Your task to perform on an android device: turn off javascript in the chrome app Image 0: 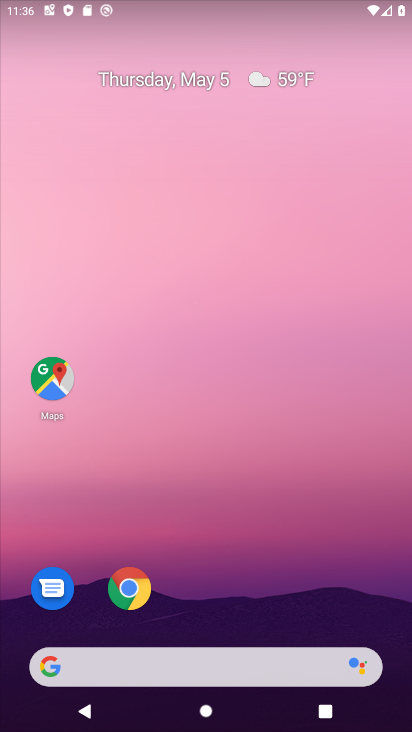
Step 0: drag from (296, 571) to (307, 82)
Your task to perform on an android device: turn off javascript in the chrome app Image 1: 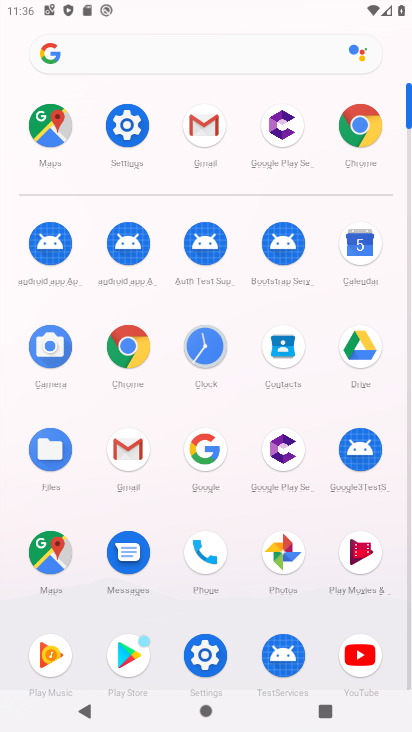
Step 1: click (361, 132)
Your task to perform on an android device: turn off javascript in the chrome app Image 2: 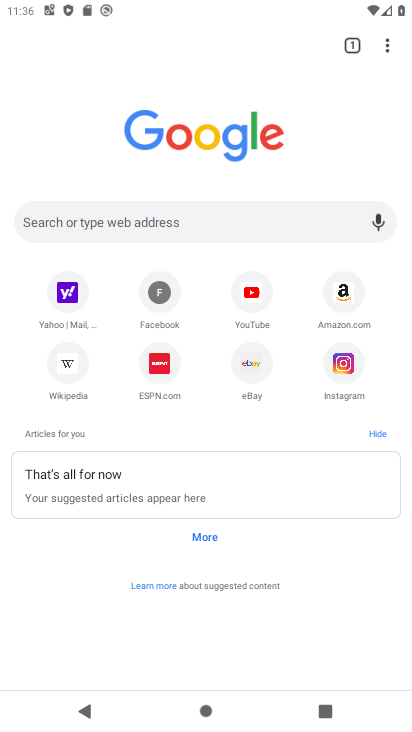
Step 2: drag from (385, 47) to (284, 373)
Your task to perform on an android device: turn off javascript in the chrome app Image 3: 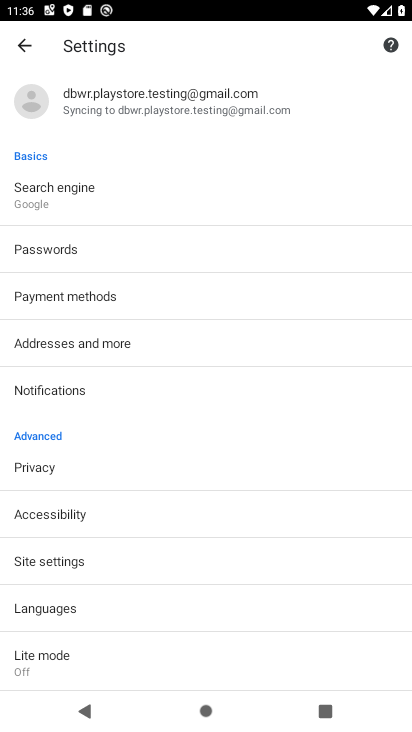
Step 3: click (140, 607)
Your task to perform on an android device: turn off javascript in the chrome app Image 4: 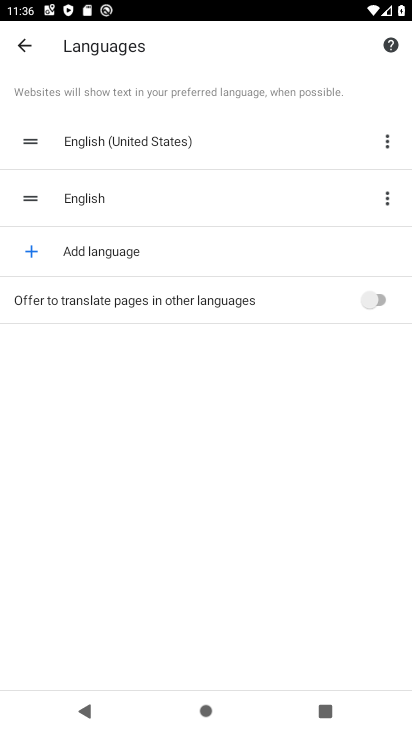
Step 4: click (19, 36)
Your task to perform on an android device: turn off javascript in the chrome app Image 5: 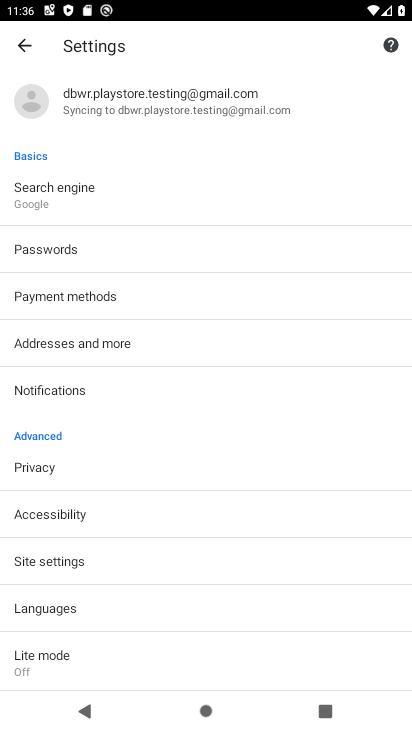
Step 5: click (83, 561)
Your task to perform on an android device: turn off javascript in the chrome app Image 6: 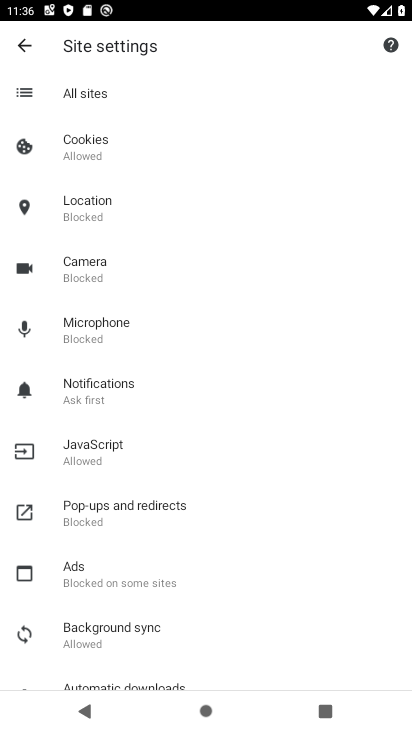
Step 6: click (135, 456)
Your task to perform on an android device: turn off javascript in the chrome app Image 7: 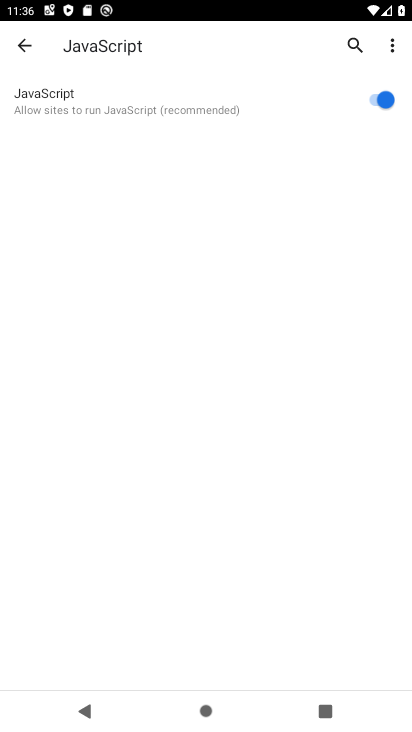
Step 7: click (369, 95)
Your task to perform on an android device: turn off javascript in the chrome app Image 8: 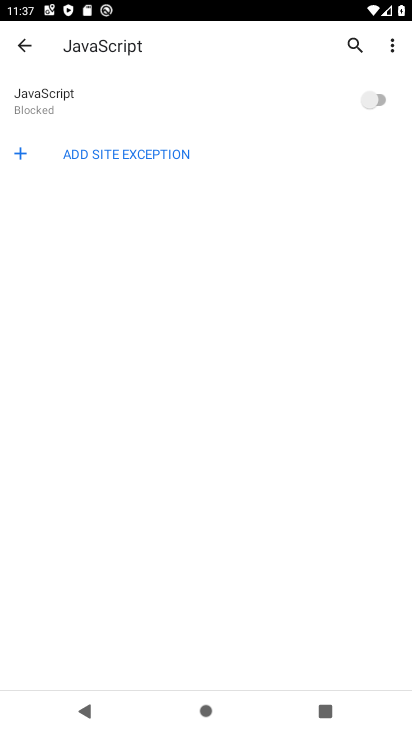
Step 8: task complete